Your task to perform on an android device: Open Amazon Image 0: 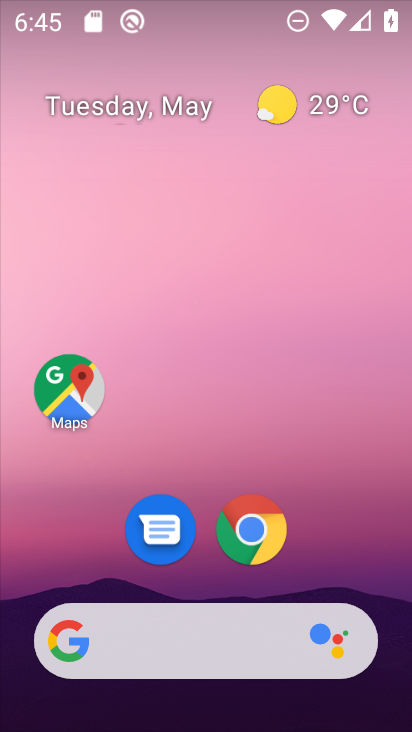
Step 0: drag from (390, 620) to (266, 67)
Your task to perform on an android device: Open Amazon Image 1: 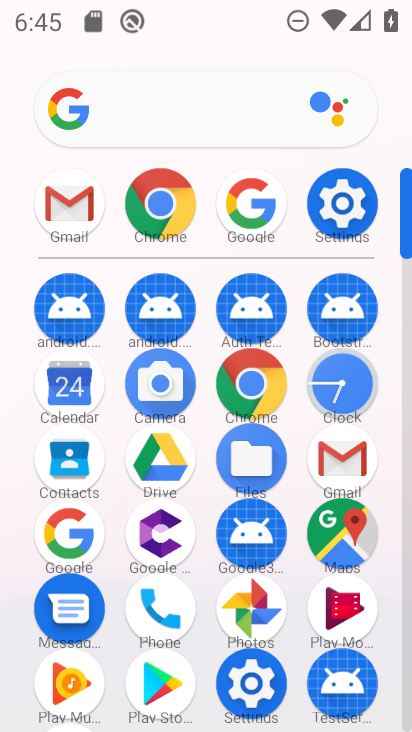
Step 1: click (154, 216)
Your task to perform on an android device: Open Amazon Image 2: 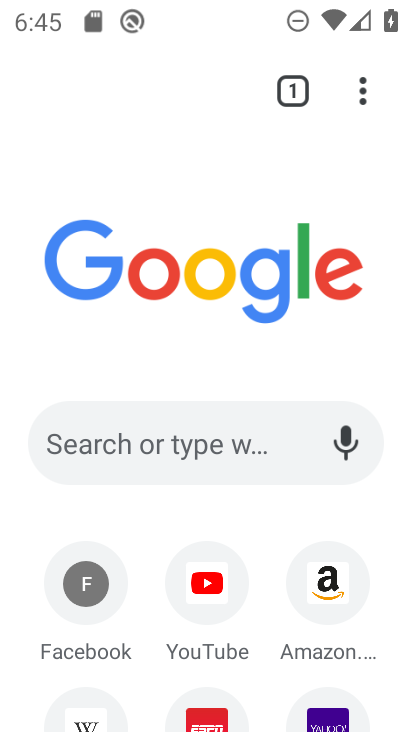
Step 2: click (320, 593)
Your task to perform on an android device: Open Amazon Image 3: 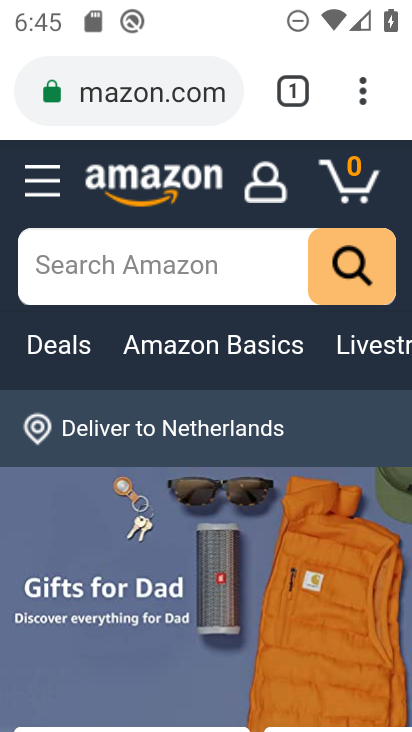
Step 3: task complete